Your task to perform on an android device: Open location settings Image 0: 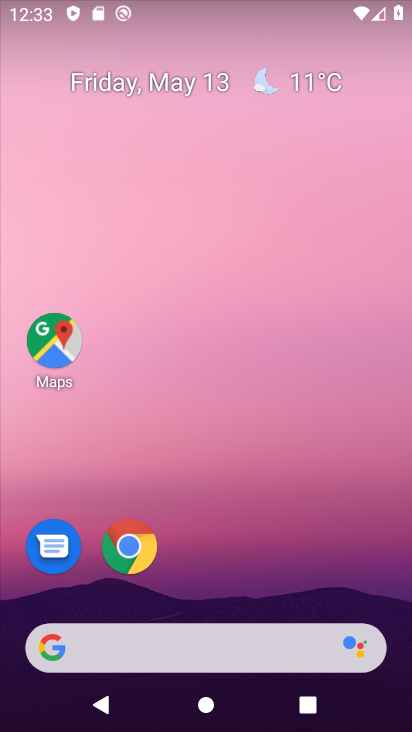
Step 0: drag from (232, 435) to (246, 64)
Your task to perform on an android device: Open location settings Image 1: 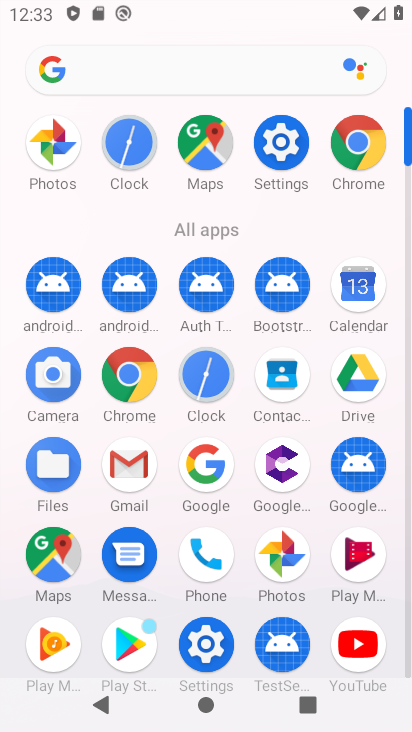
Step 1: click (292, 176)
Your task to perform on an android device: Open location settings Image 2: 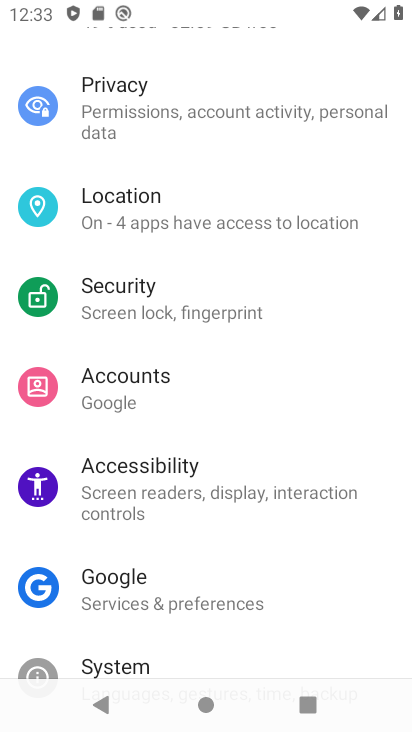
Step 2: click (181, 219)
Your task to perform on an android device: Open location settings Image 3: 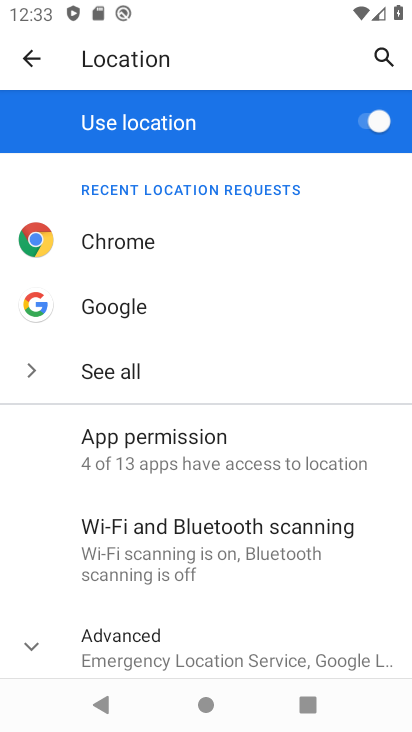
Step 3: task complete